Your task to perform on an android device: turn smart compose on in the gmail app Image 0: 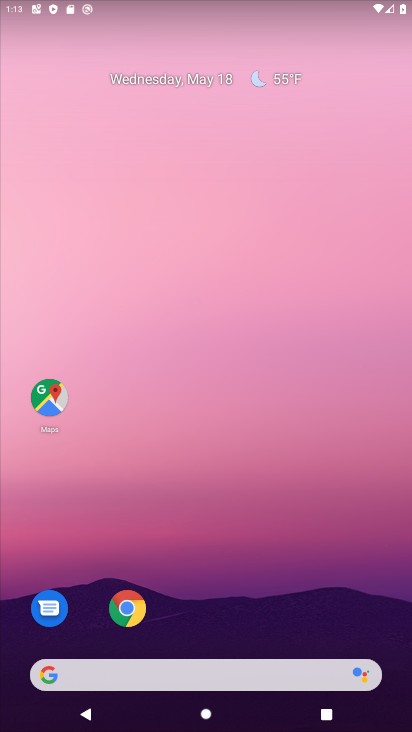
Step 0: drag from (243, 600) to (253, 156)
Your task to perform on an android device: turn smart compose on in the gmail app Image 1: 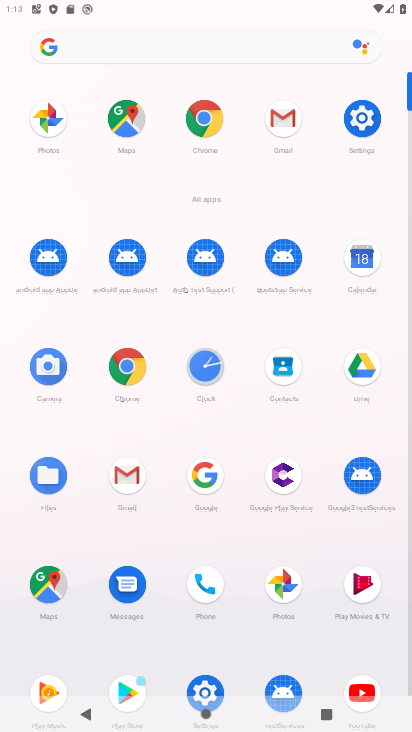
Step 1: click (285, 125)
Your task to perform on an android device: turn smart compose on in the gmail app Image 2: 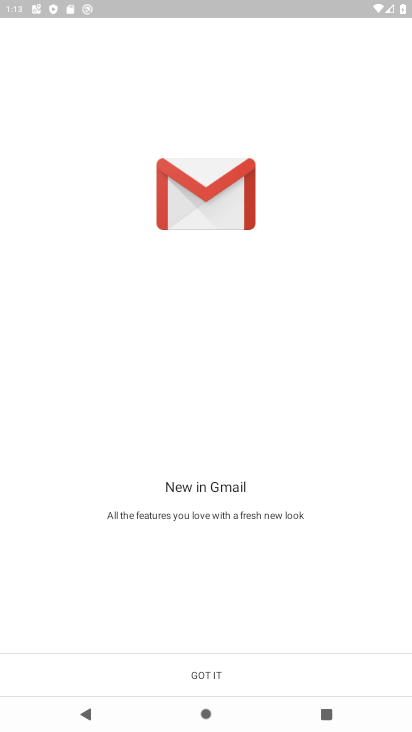
Step 2: click (245, 670)
Your task to perform on an android device: turn smart compose on in the gmail app Image 3: 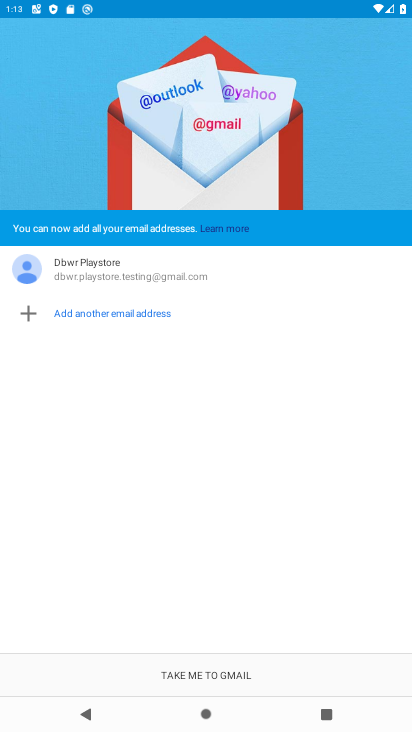
Step 3: click (154, 277)
Your task to perform on an android device: turn smart compose on in the gmail app Image 4: 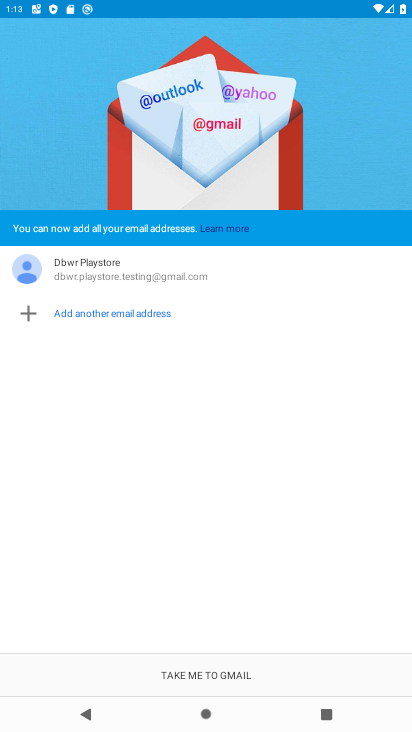
Step 4: click (276, 665)
Your task to perform on an android device: turn smart compose on in the gmail app Image 5: 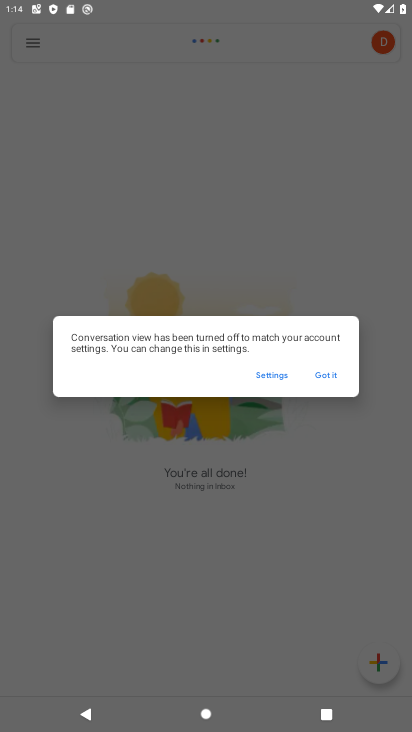
Step 5: click (329, 368)
Your task to perform on an android device: turn smart compose on in the gmail app Image 6: 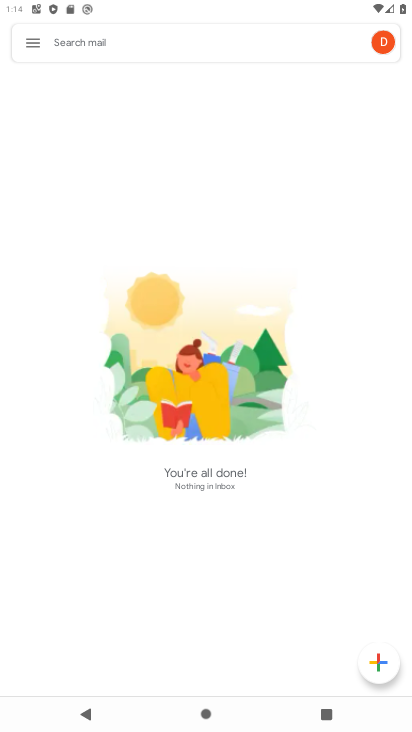
Step 6: click (26, 39)
Your task to perform on an android device: turn smart compose on in the gmail app Image 7: 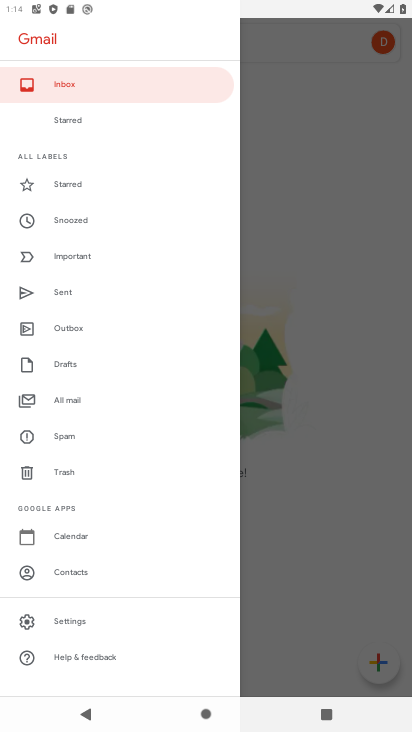
Step 7: drag from (76, 590) to (193, 139)
Your task to perform on an android device: turn smart compose on in the gmail app Image 8: 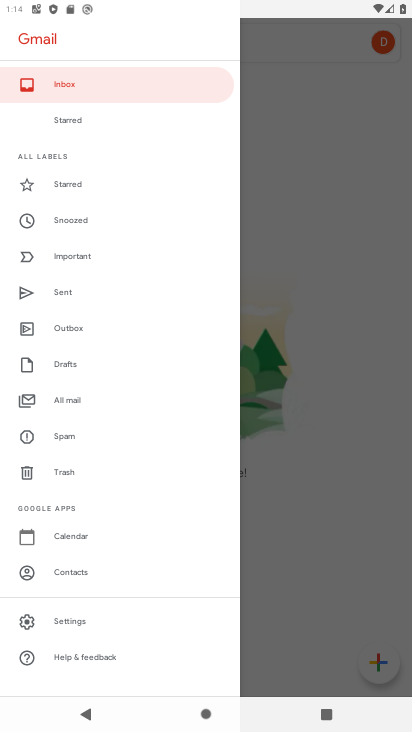
Step 8: click (88, 622)
Your task to perform on an android device: turn smart compose on in the gmail app Image 9: 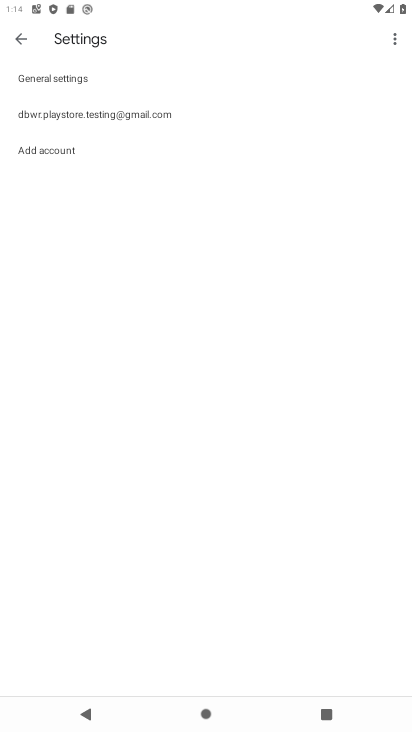
Step 9: click (114, 113)
Your task to perform on an android device: turn smart compose on in the gmail app Image 10: 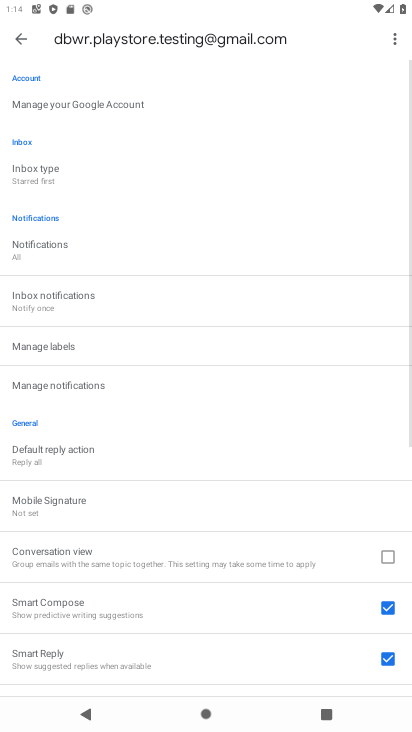
Step 10: task complete